Your task to perform on an android device: set an alarm Image 0: 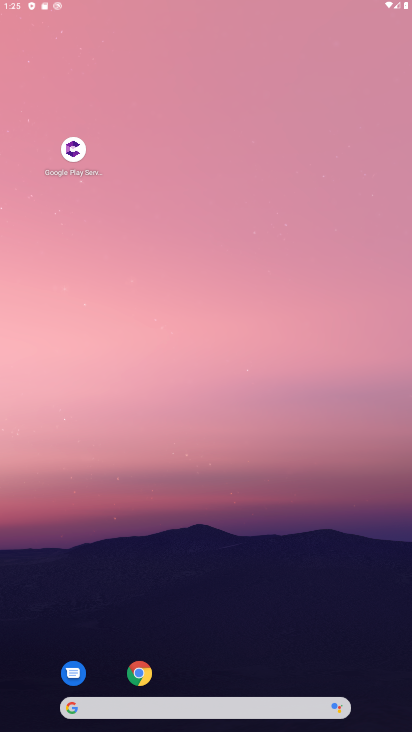
Step 0: drag from (251, 468) to (244, 339)
Your task to perform on an android device: set an alarm Image 1: 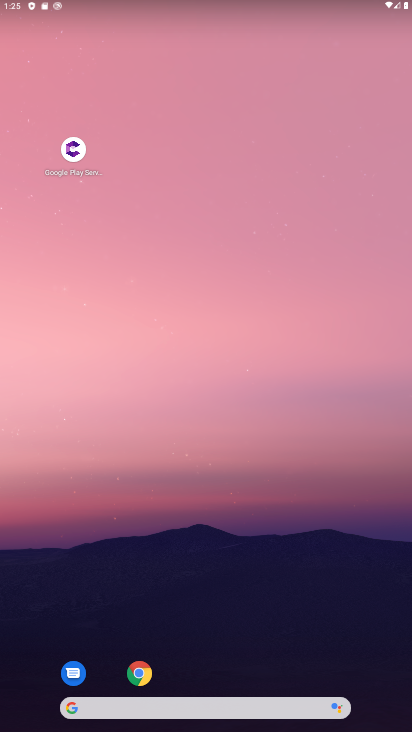
Step 1: press home button
Your task to perform on an android device: set an alarm Image 2: 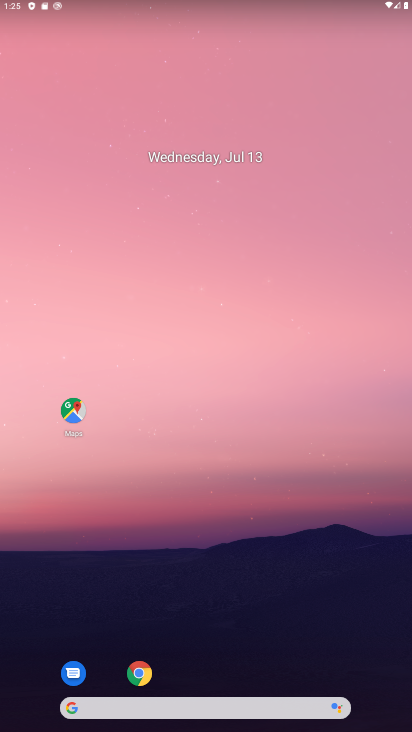
Step 2: drag from (212, 664) to (218, 179)
Your task to perform on an android device: set an alarm Image 3: 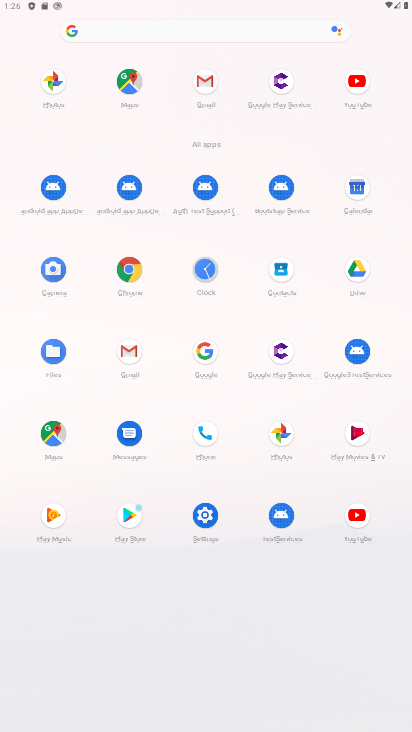
Step 3: click (194, 267)
Your task to perform on an android device: set an alarm Image 4: 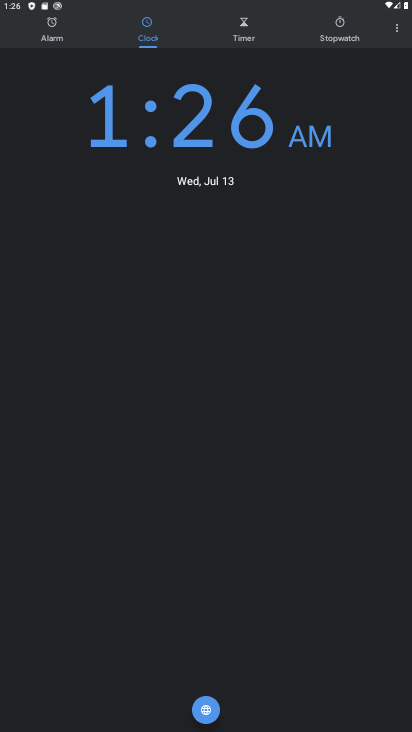
Step 4: click (58, 27)
Your task to perform on an android device: set an alarm Image 5: 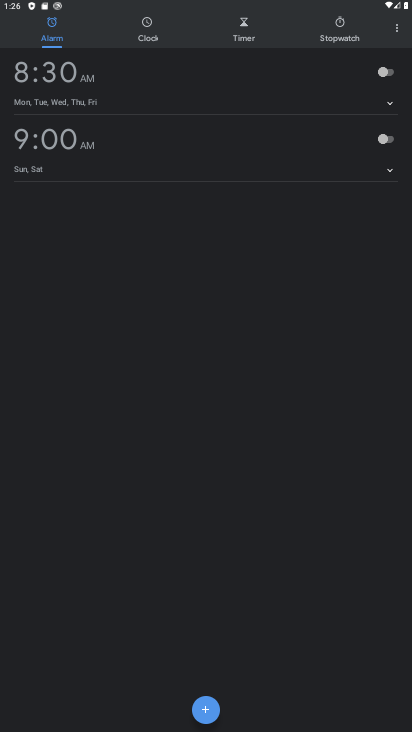
Step 5: click (381, 74)
Your task to perform on an android device: set an alarm Image 6: 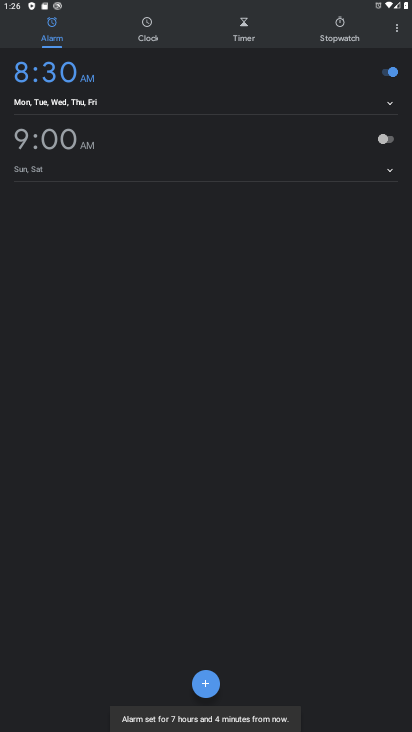
Step 6: task complete